Your task to perform on an android device: toggle improve location accuracy Image 0: 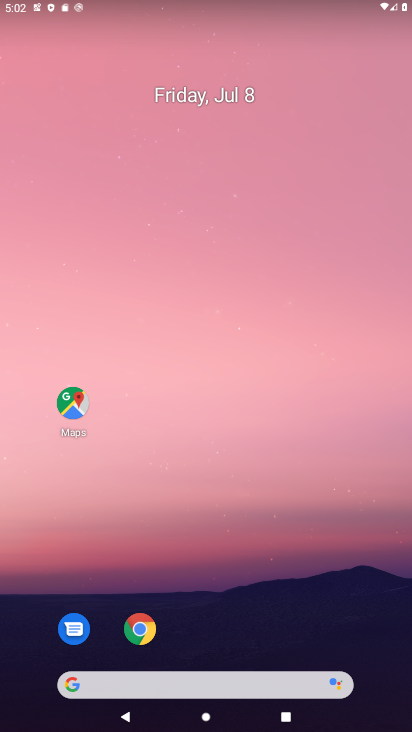
Step 0: press home button
Your task to perform on an android device: toggle improve location accuracy Image 1: 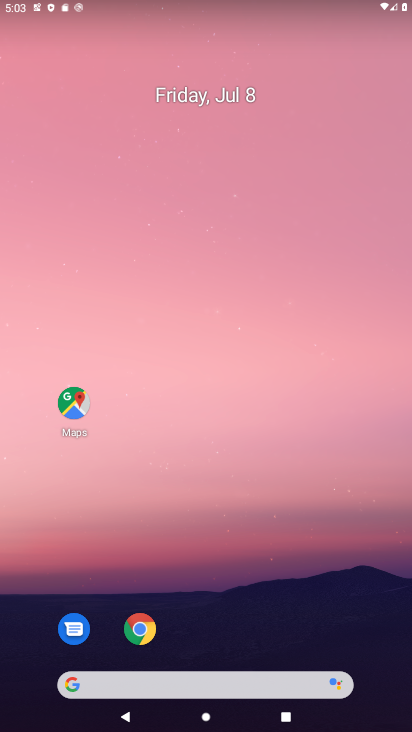
Step 1: drag from (192, 617) to (201, 22)
Your task to perform on an android device: toggle improve location accuracy Image 2: 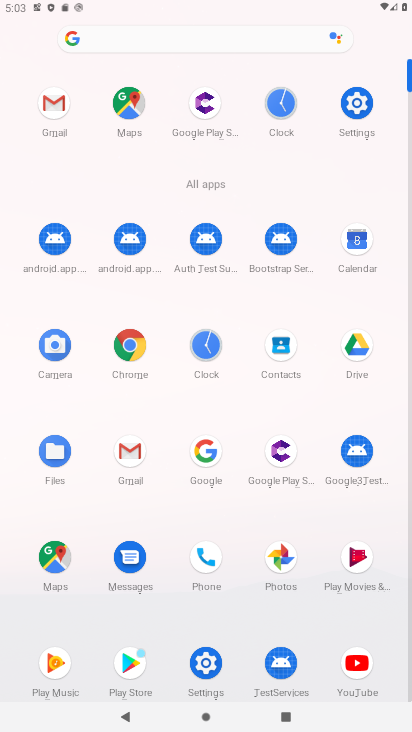
Step 2: click (346, 100)
Your task to perform on an android device: toggle improve location accuracy Image 3: 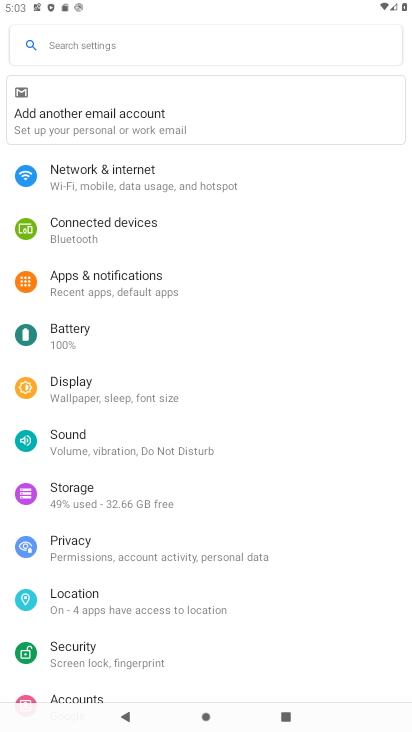
Step 3: click (96, 598)
Your task to perform on an android device: toggle improve location accuracy Image 4: 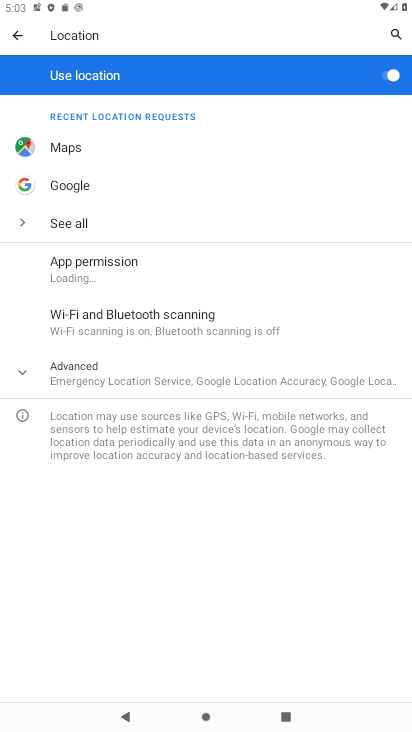
Step 4: click (75, 377)
Your task to perform on an android device: toggle improve location accuracy Image 5: 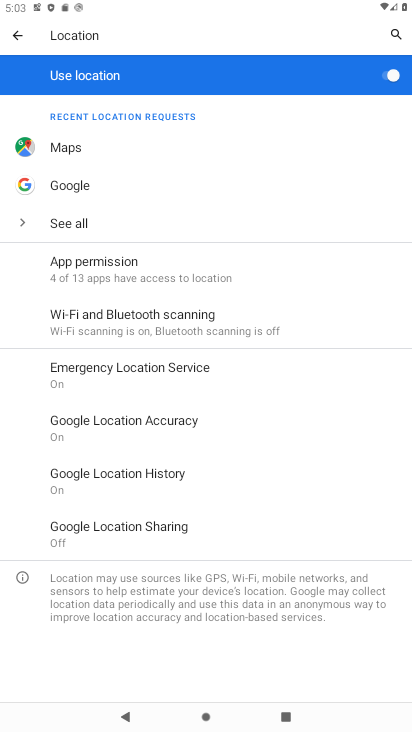
Step 5: click (145, 425)
Your task to perform on an android device: toggle improve location accuracy Image 6: 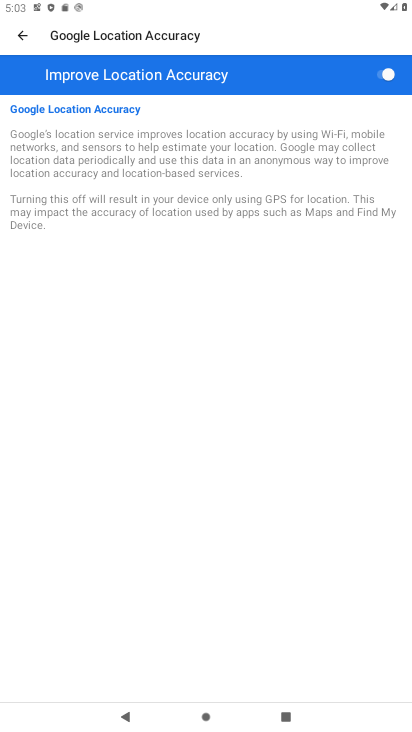
Step 6: click (387, 76)
Your task to perform on an android device: toggle improve location accuracy Image 7: 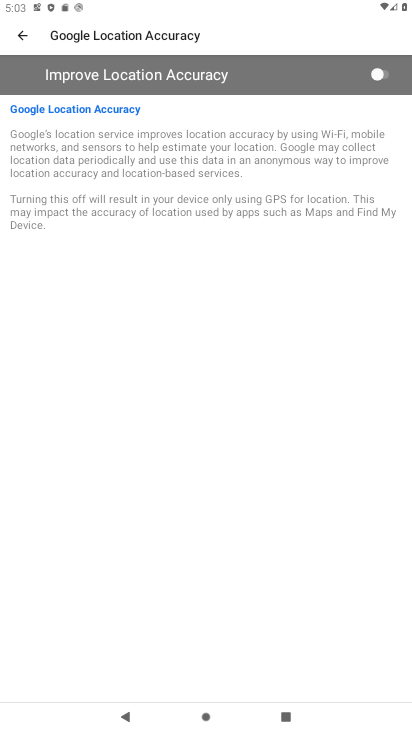
Step 7: task complete